Your task to perform on an android device: turn off priority inbox in the gmail app Image 0: 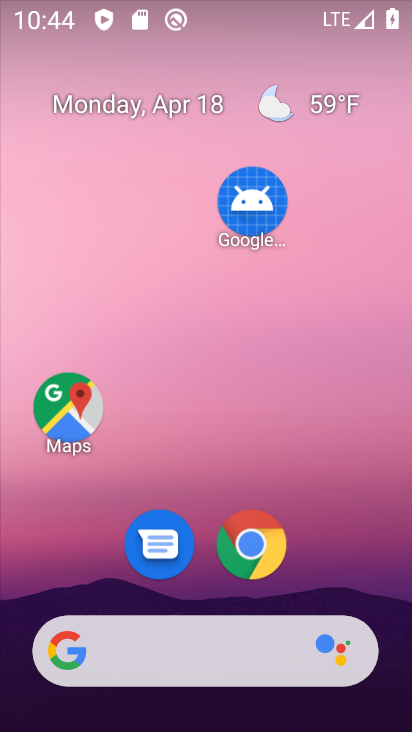
Step 0: drag from (336, 546) to (395, 129)
Your task to perform on an android device: turn off priority inbox in the gmail app Image 1: 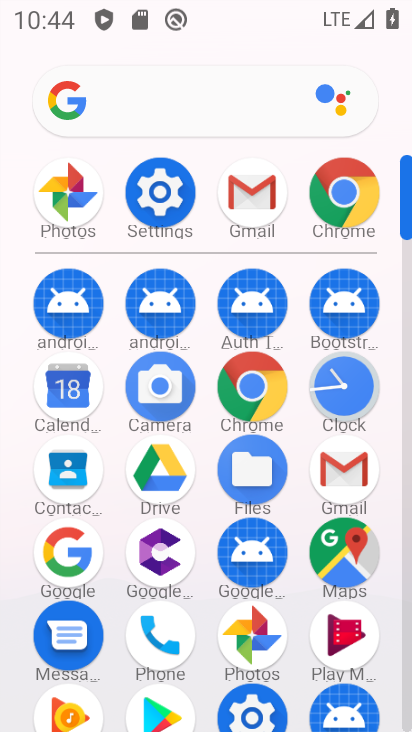
Step 1: click (255, 195)
Your task to perform on an android device: turn off priority inbox in the gmail app Image 2: 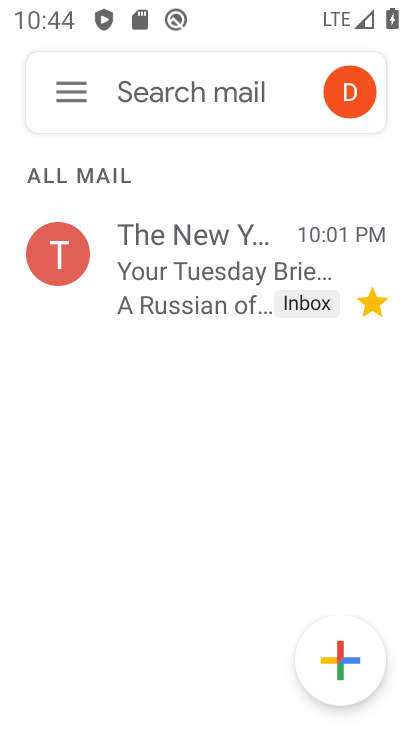
Step 2: click (61, 78)
Your task to perform on an android device: turn off priority inbox in the gmail app Image 3: 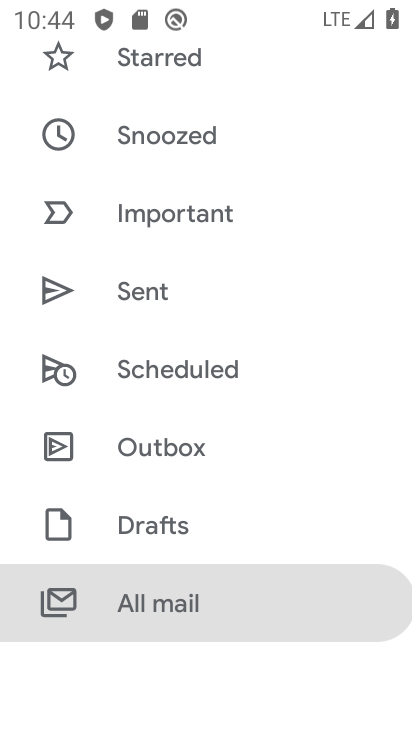
Step 3: drag from (169, 658) to (233, 72)
Your task to perform on an android device: turn off priority inbox in the gmail app Image 4: 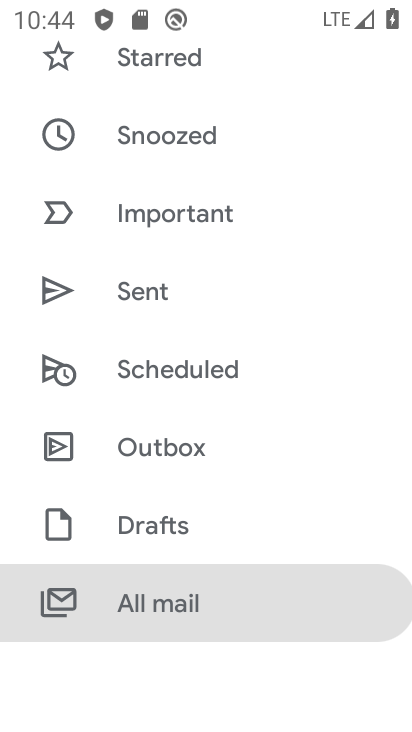
Step 4: drag from (253, 433) to (260, 108)
Your task to perform on an android device: turn off priority inbox in the gmail app Image 5: 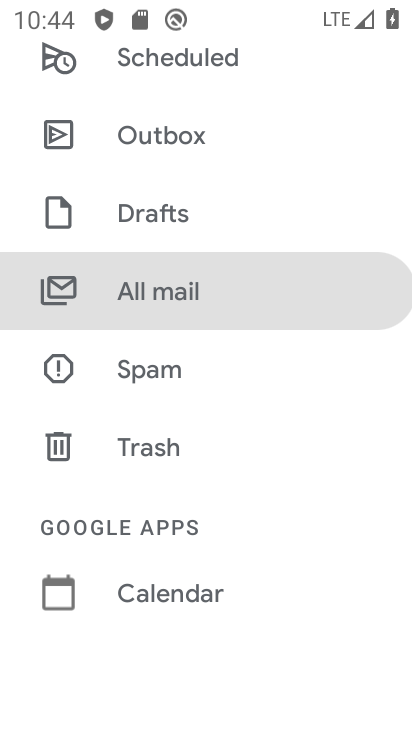
Step 5: drag from (208, 457) to (207, 96)
Your task to perform on an android device: turn off priority inbox in the gmail app Image 6: 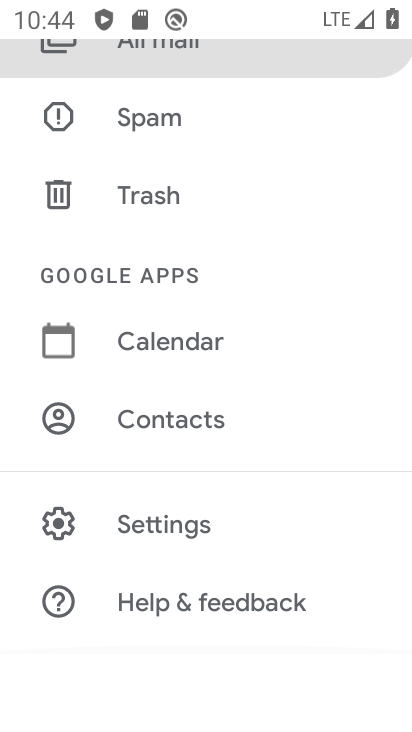
Step 6: click (138, 530)
Your task to perform on an android device: turn off priority inbox in the gmail app Image 7: 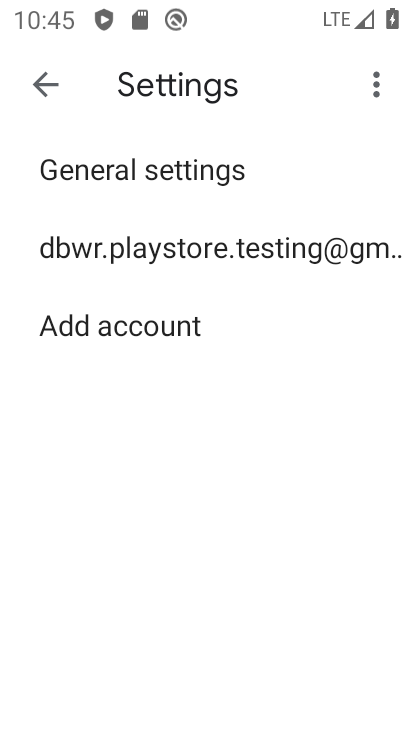
Step 7: click (307, 258)
Your task to perform on an android device: turn off priority inbox in the gmail app Image 8: 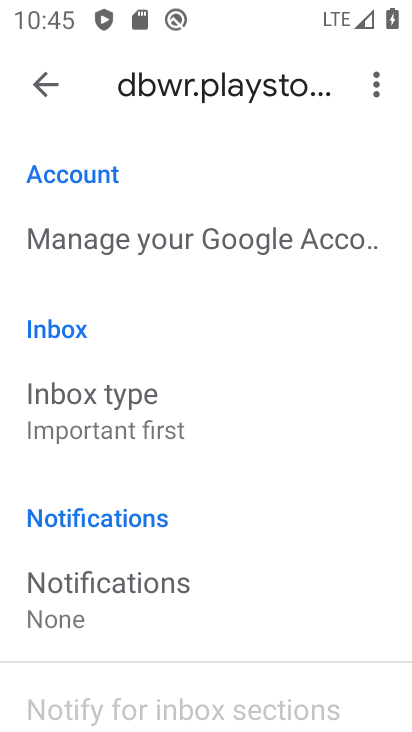
Step 8: click (189, 423)
Your task to perform on an android device: turn off priority inbox in the gmail app Image 9: 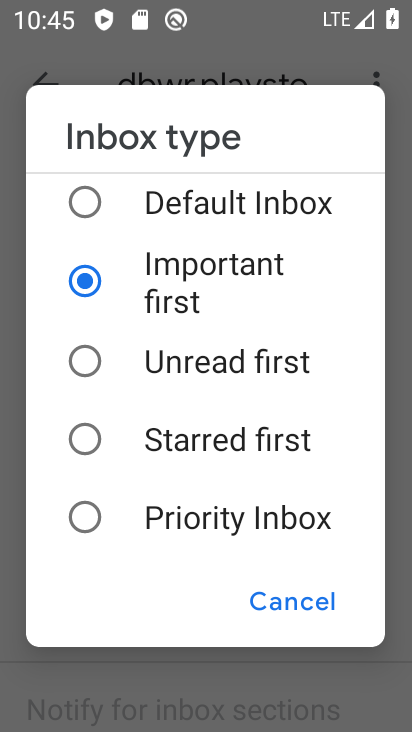
Step 9: click (180, 218)
Your task to perform on an android device: turn off priority inbox in the gmail app Image 10: 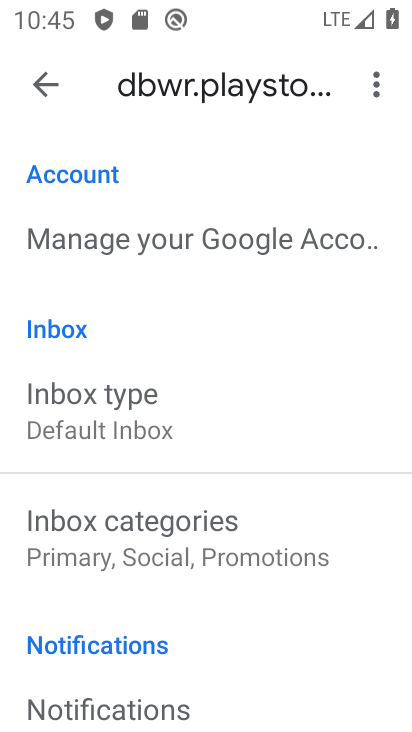
Step 10: task complete